Your task to perform on an android device: What's on my calendar tomorrow? Image 0: 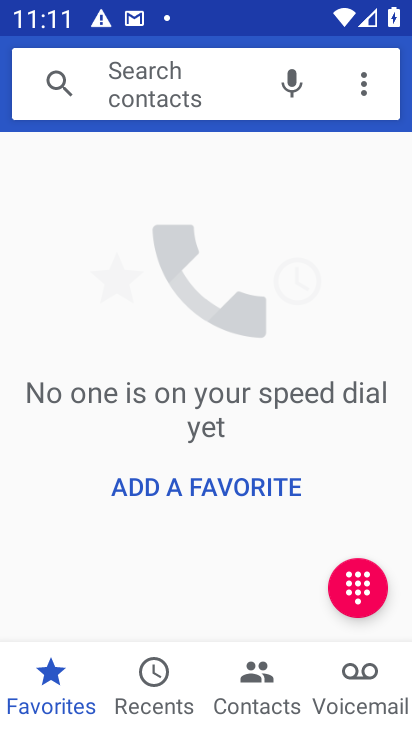
Step 0: press home button
Your task to perform on an android device: What's on my calendar tomorrow? Image 1: 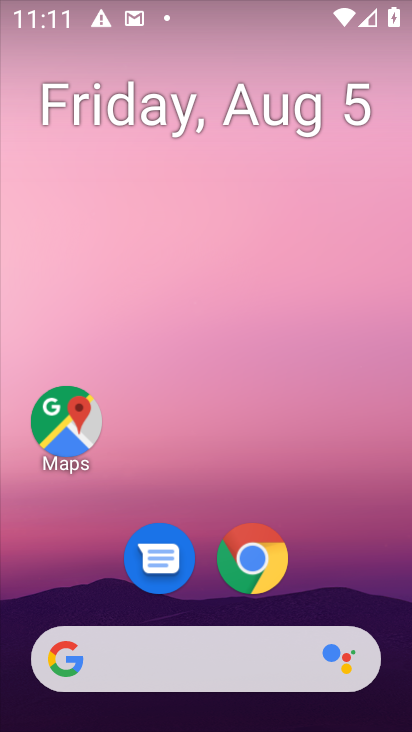
Step 1: drag from (366, 575) to (376, 250)
Your task to perform on an android device: What's on my calendar tomorrow? Image 2: 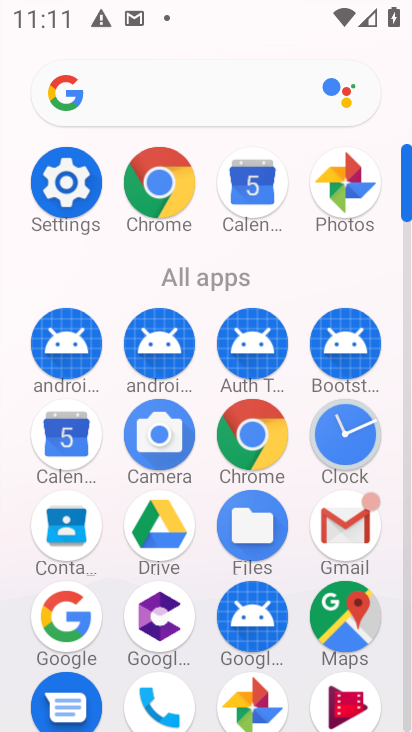
Step 2: click (49, 447)
Your task to perform on an android device: What's on my calendar tomorrow? Image 3: 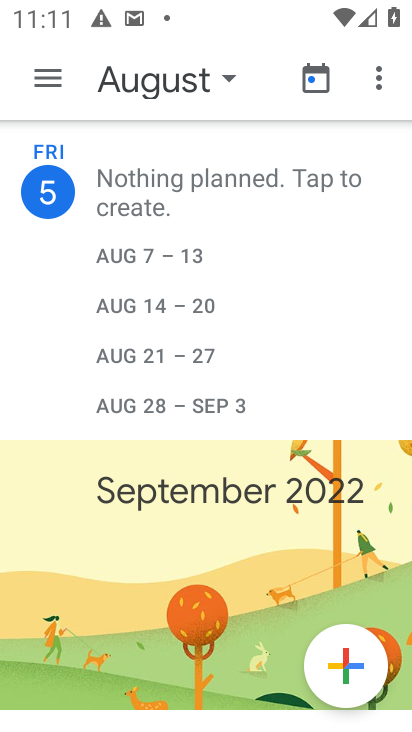
Step 3: click (228, 78)
Your task to perform on an android device: What's on my calendar tomorrow? Image 4: 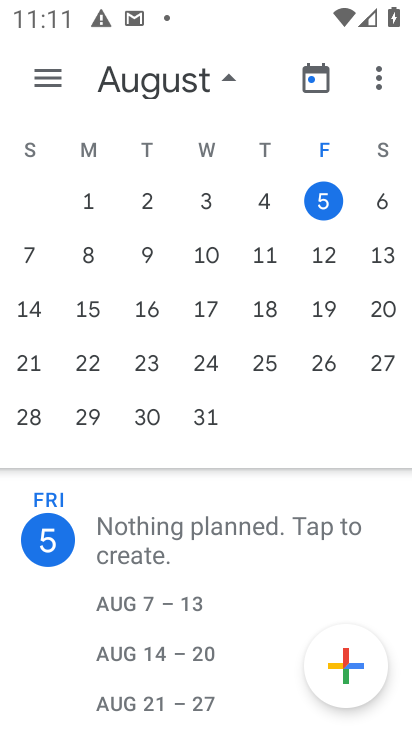
Step 4: click (26, 246)
Your task to perform on an android device: What's on my calendar tomorrow? Image 5: 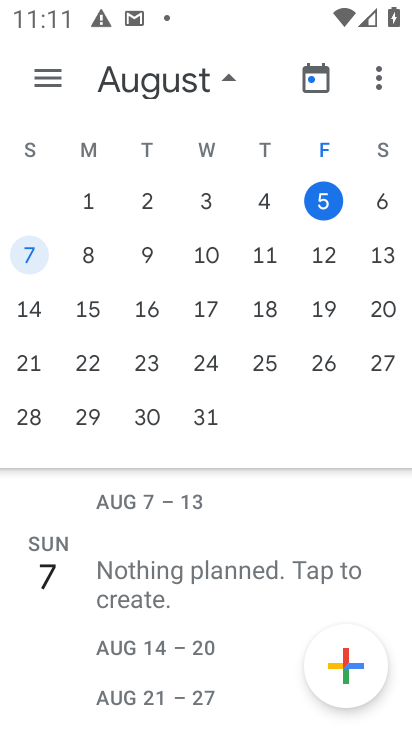
Step 5: task complete